Your task to perform on an android device: Open Chrome and go to settings Image 0: 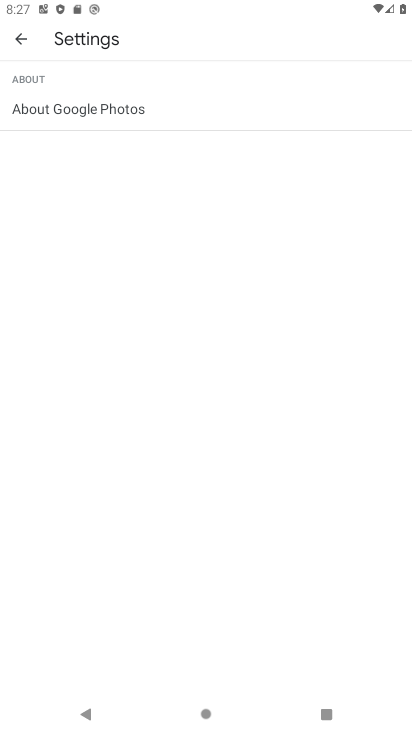
Step 0: press back button
Your task to perform on an android device: Open Chrome and go to settings Image 1: 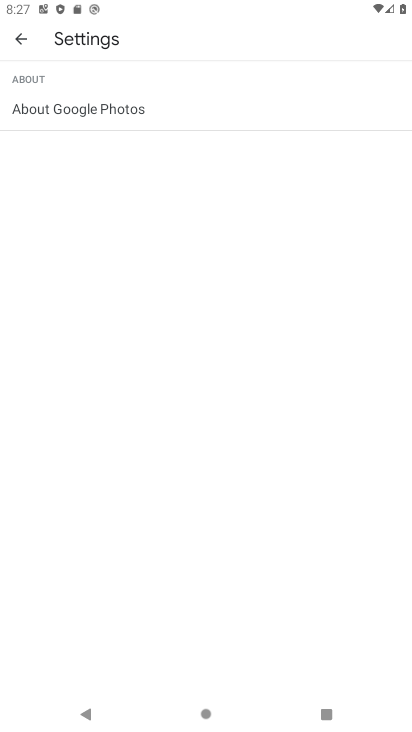
Step 1: press home button
Your task to perform on an android device: Open Chrome and go to settings Image 2: 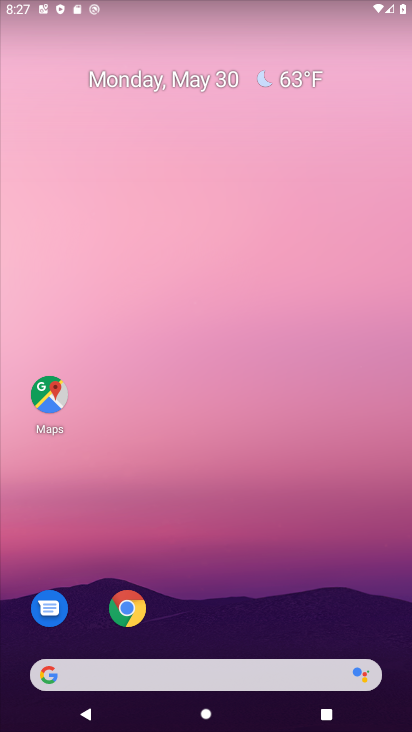
Step 2: click (128, 609)
Your task to perform on an android device: Open Chrome and go to settings Image 3: 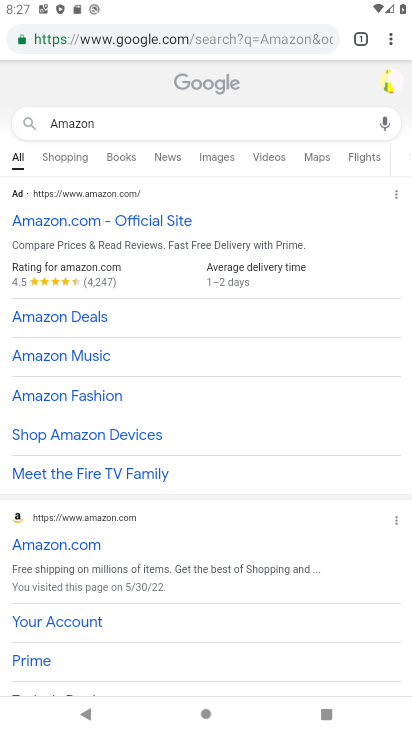
Step 3: drag from (268, 652) to (225, 242)
Your task to perform on an android device: Open Chrome and go to settings Image 4: 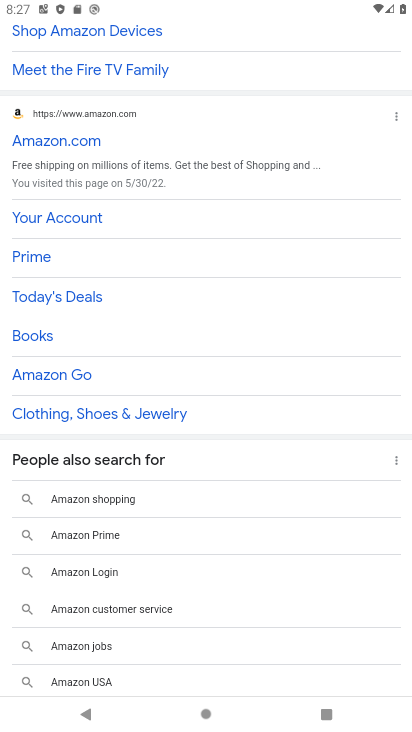
Step 4: drag from (225, 92) to (258, 592)
Your task to perform on an android device: Open Chrome and go to settings Image 5: 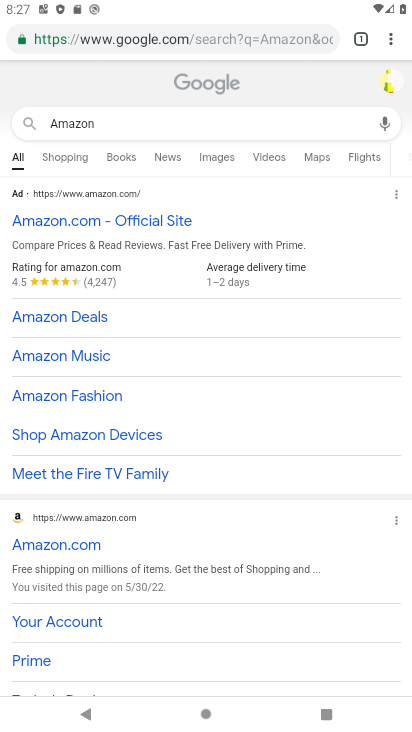
Step 5: click (393, 31)
Your task to perform on an android device: Open Chrome and go to settings Image 6: 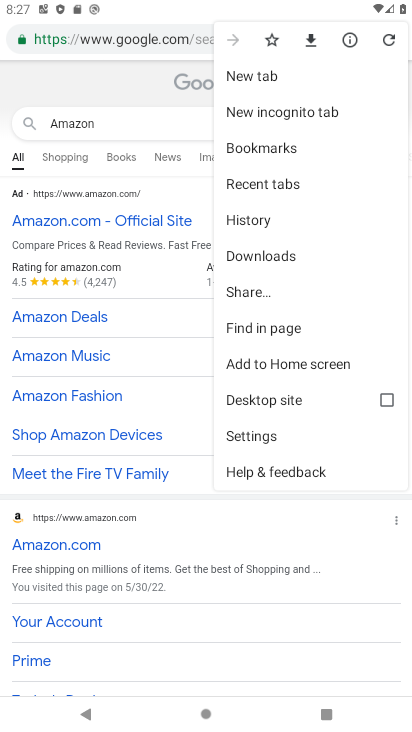
Step 6: click (244, 436)
Your task to perform on an android device: Open Chrome and go to settings Image 7: 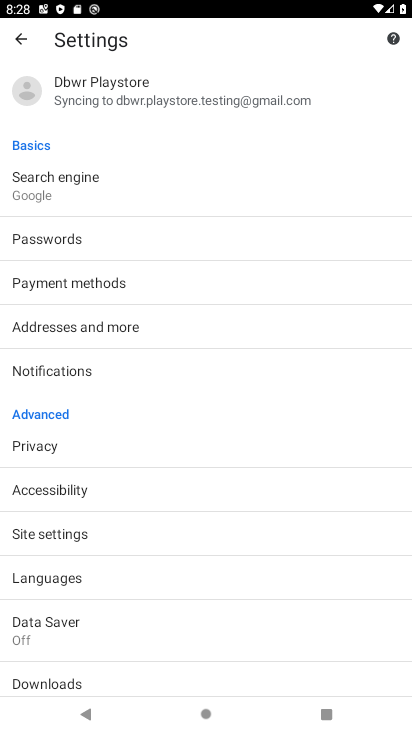
Step 7: task complete